Your task to perform on an android device: Go to calendar. Show me events next week Image 0: 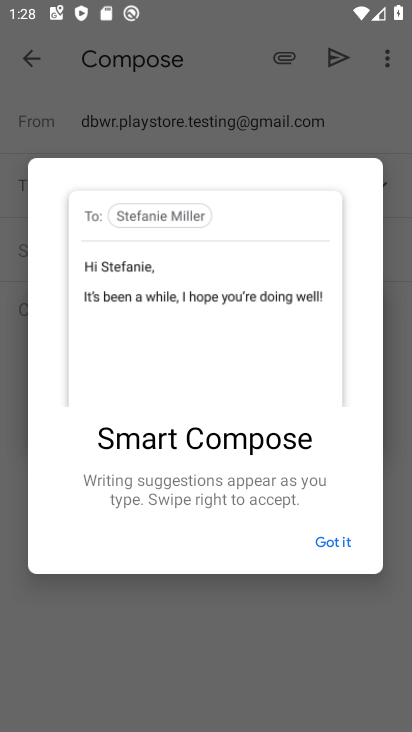
Step 0: press home button
Your task to perform on an android device: Go to calendar. Show me events next week Image 1: 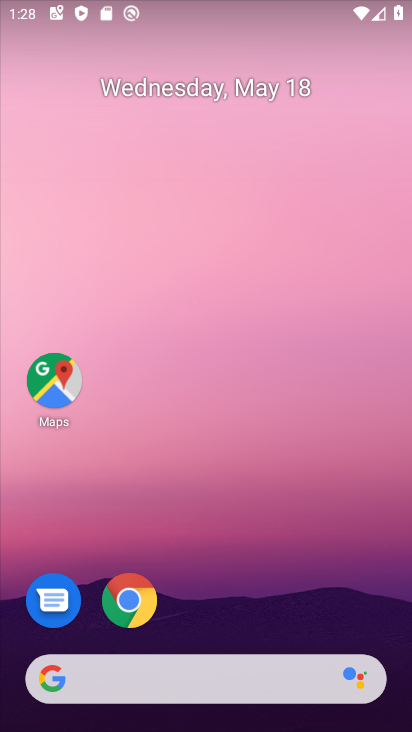
Step 1: drag from (233, 599) to (183, 235)
Your task to perform on an android device: Go to calendar. Show me events next week Image 2: 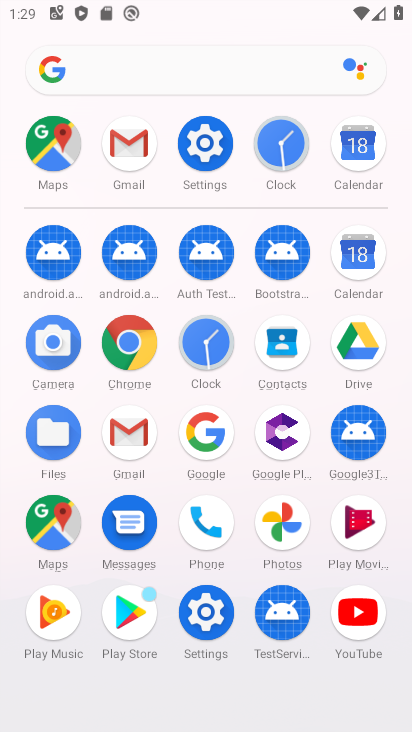
Step 2: click (355, 145)
Your task to perform on an android device: Go to calendar. Show me events next week Image 3: 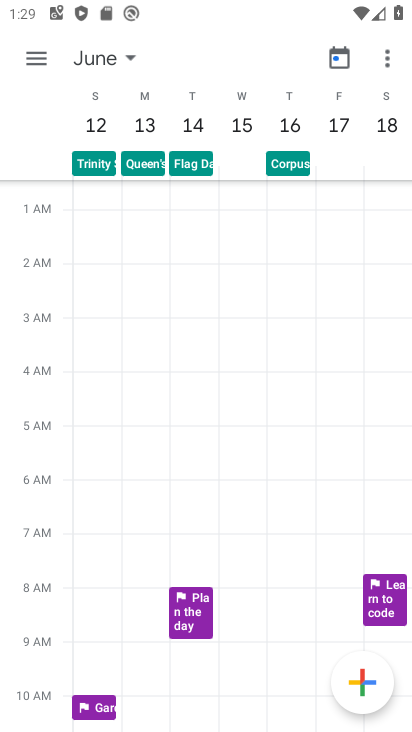
Step 3: click (347, 63)
Your task to perform on an android device: Go to calendar. Show me events next week Image 4: 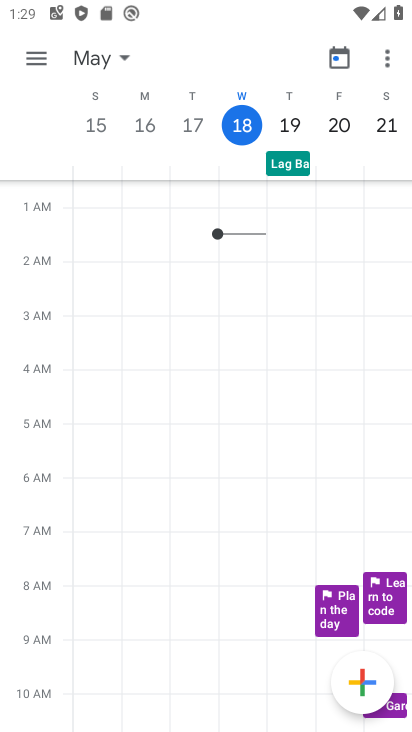
Step 4: click (126, 56)
Your task to perform on an android device: Go to calendar. Show me events next week Image 5: 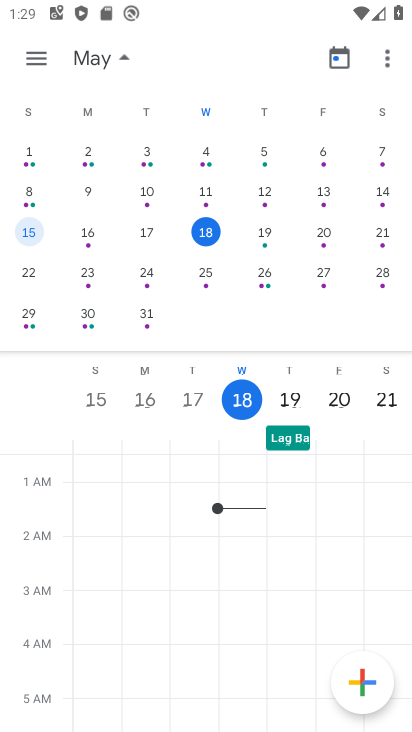
Step 5: click (93, 272)
Your task to perform on an android device: Go to calendar. Show me events next week Image 6: 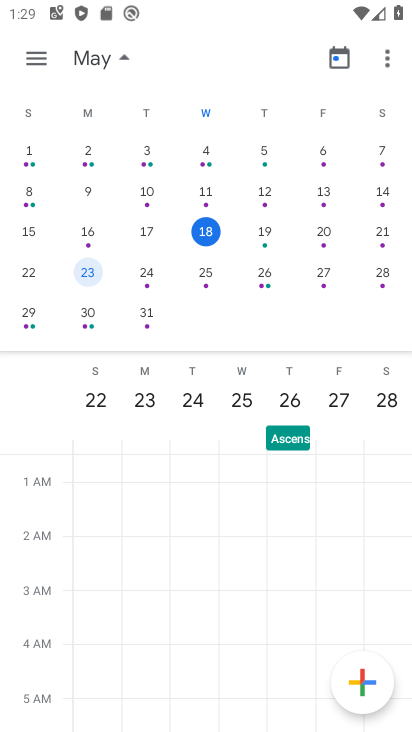
Step 6: click (35, 64)
Your task to perform on an android device: Go to calendar. Show me events next week Image 7: 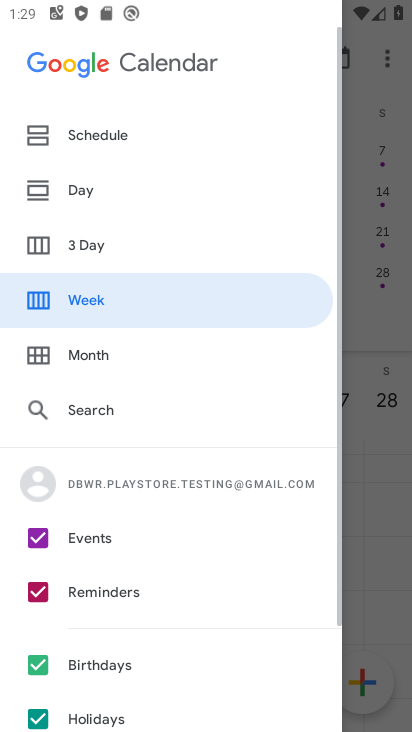
Step 7: click (94, 143)
Your task to perform on an android device: Go to calendar. Show me events next week Image 8: 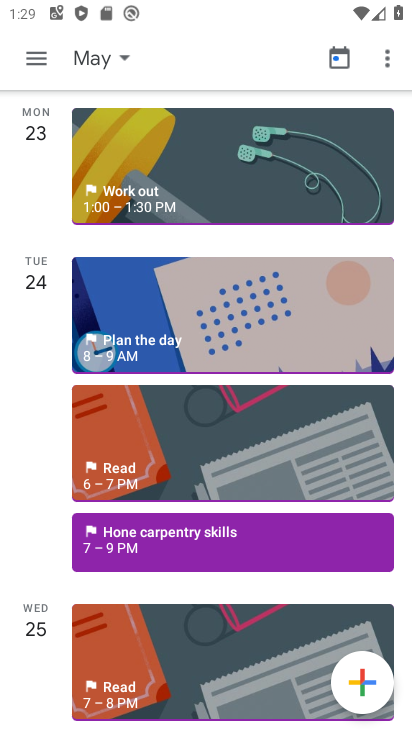
Step 8: click (155, 174)
Your task to perform on an android device: Go to calendar. Show me events next week Image 9: 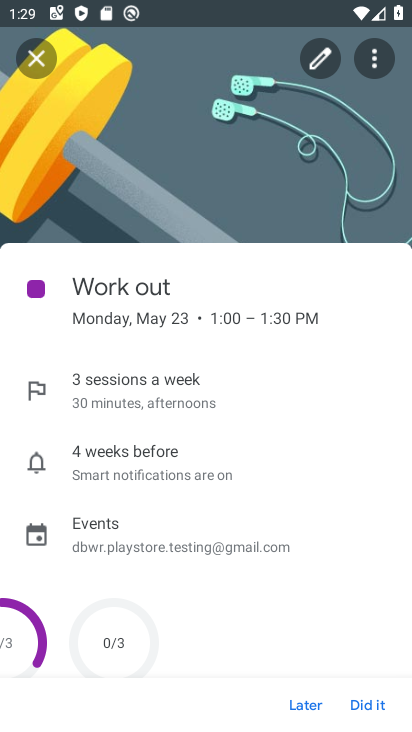
Step 9: task complete